Your task to perform on an android device: Set the phone to "Do not disturb". Image 0: 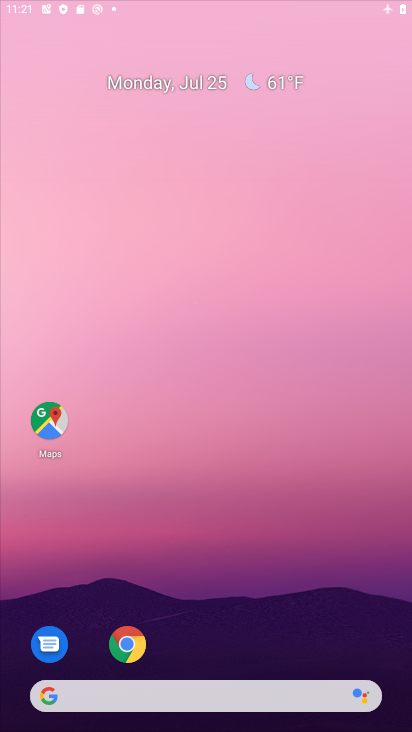
Step 0: click (184, 176)
Your task to perform on an android device: Set the phone to "Do not disturb". Image 1: 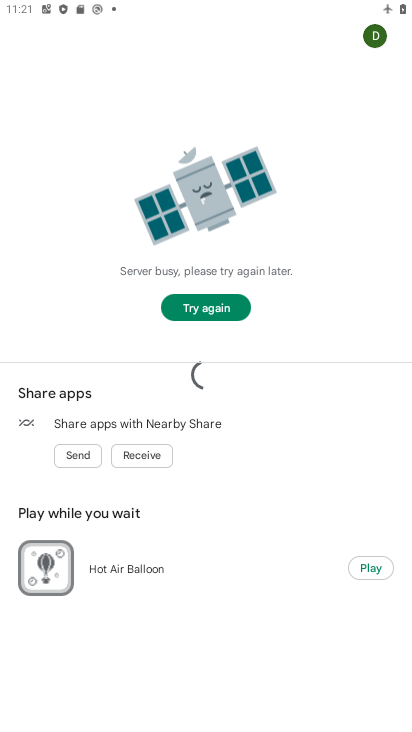
Step 1: drag from (221, 650) to (225, 513)
Your task to perform on an android device: Set the phone to "Do not disturb". Image 2: 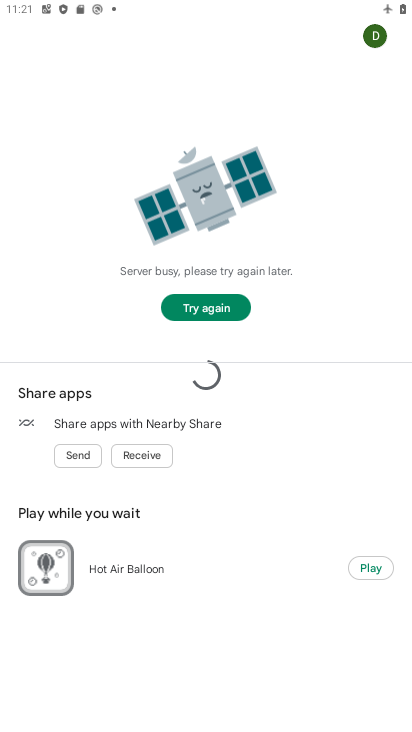
Step 2: press home button
Your task to perform on an android device: Set the phone to "Do not disturb". Image 3: 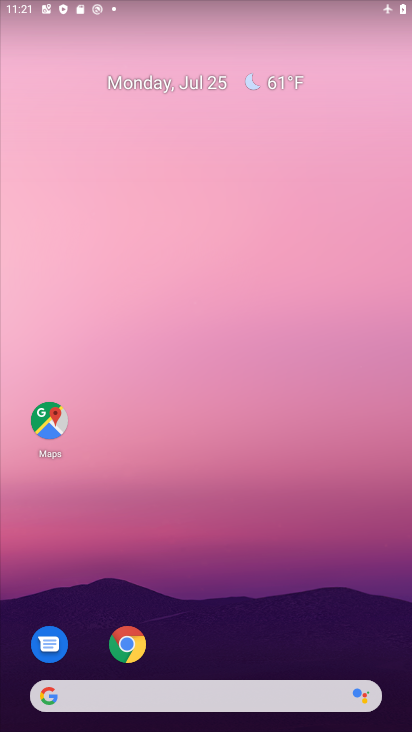
Step 3: drag from (209, 0) to (195, 529)
Your task to perform on an android device: Set the phone to "Do not disturb". Image 4: 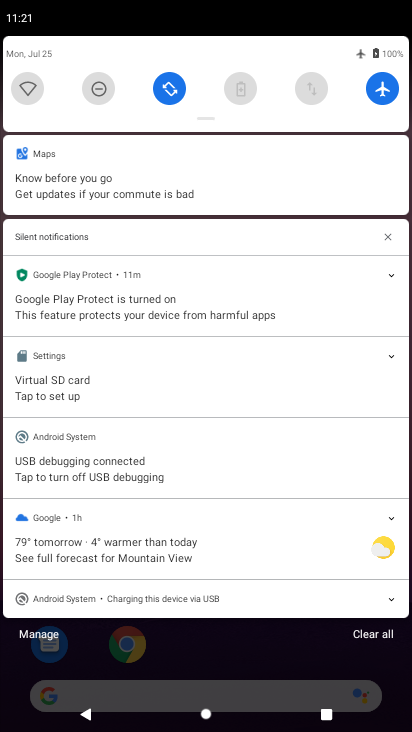
Step 4: click (90, 85)
Your task to perform on an android device: Set the phone to "Do not disturb". Image 5: 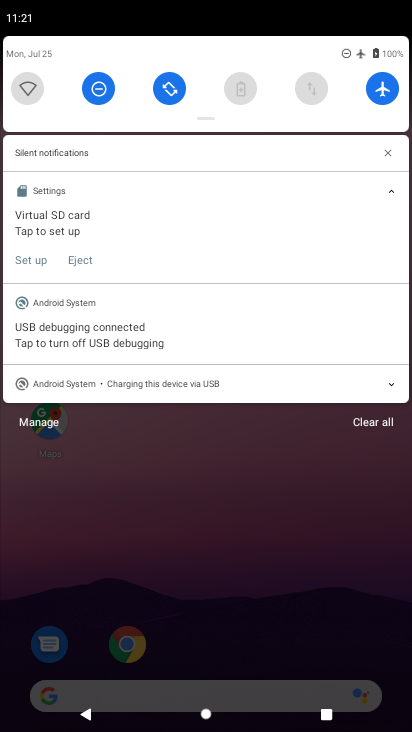
Step 5: task complete